Your task to perform on an android device: check out phone information Image 0: 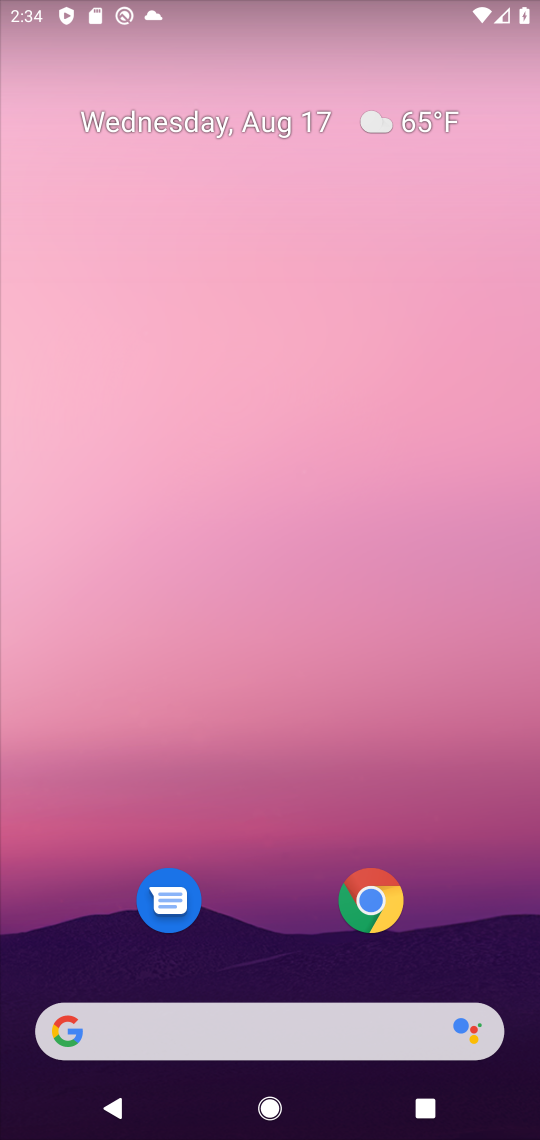
Step 0: drag from (234, 1014) to (301, 145)
Your task to perform on an android device: check out phone information Image 1: 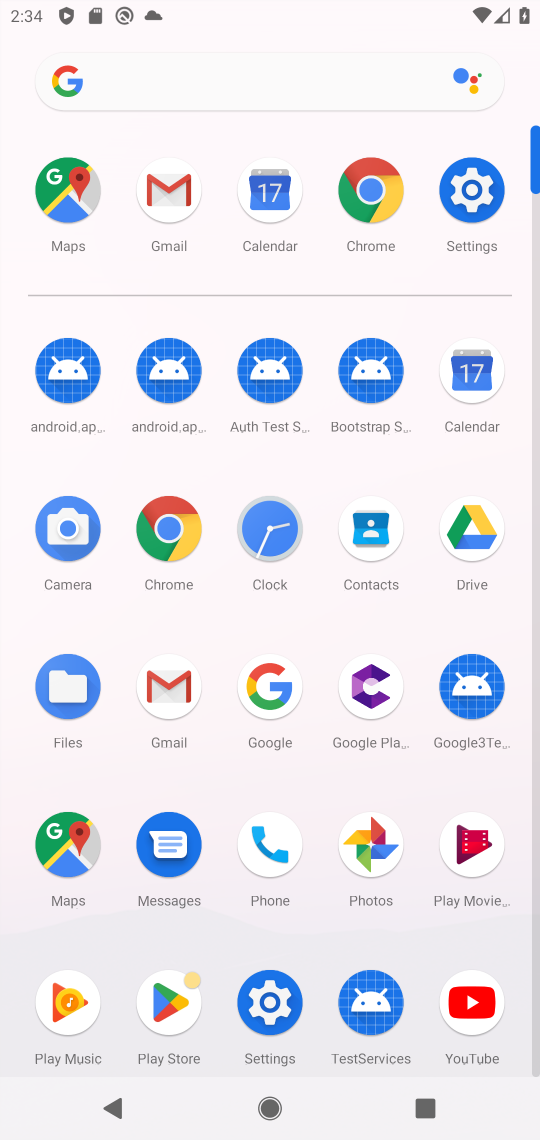
Step 1: click (473, 192)
Your task to perform on an android device: check out phone information Image 2: 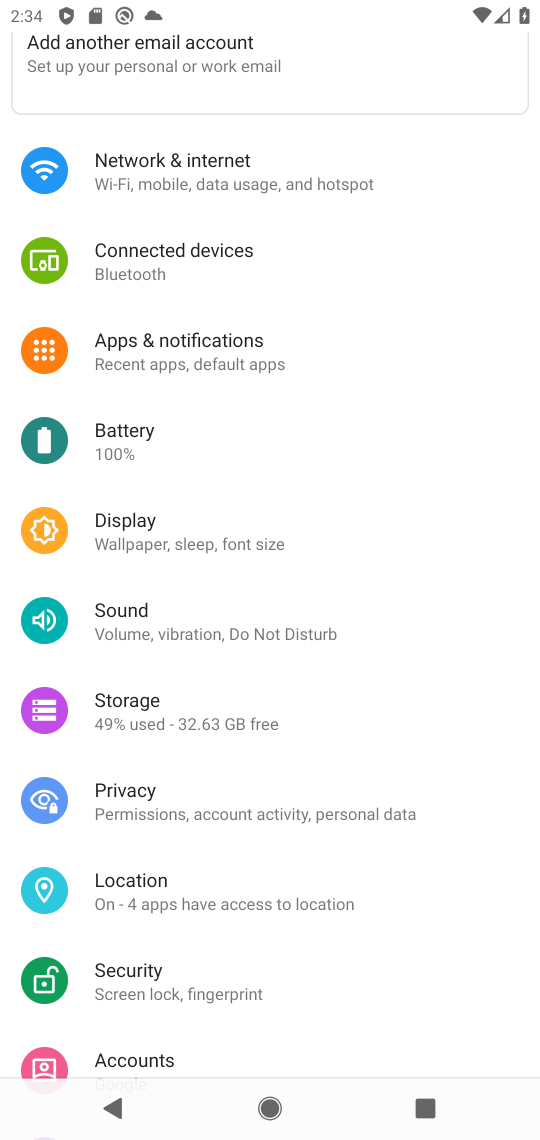
Step 2: drag from (249, 992) to (405, 157)
Your task to perform on an android device: check out phone information Image 3: 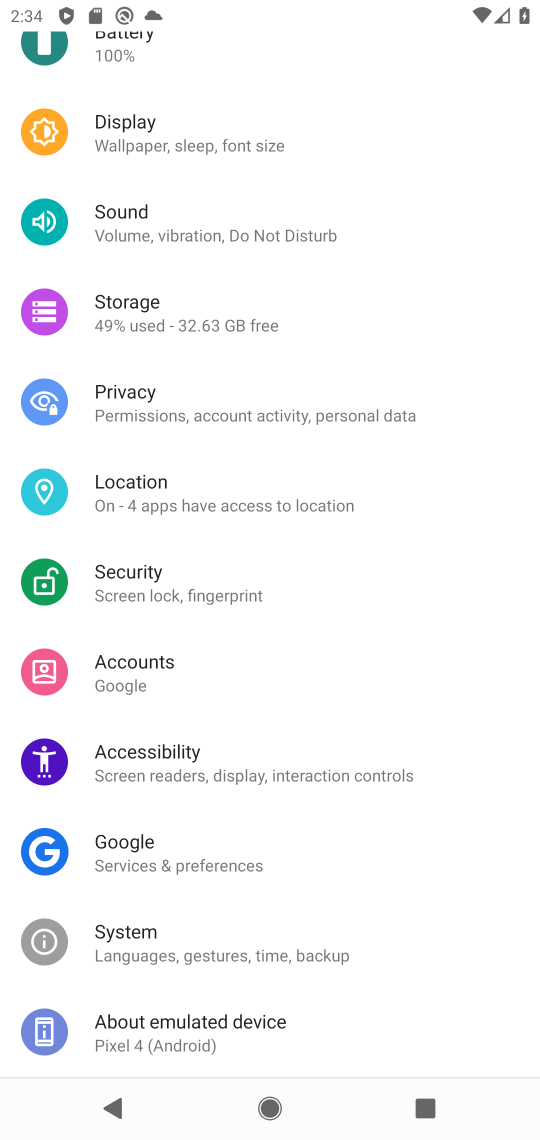
Step 3: click (198, 1015)
Your task to perform on an android device: check out phone information Image 4: 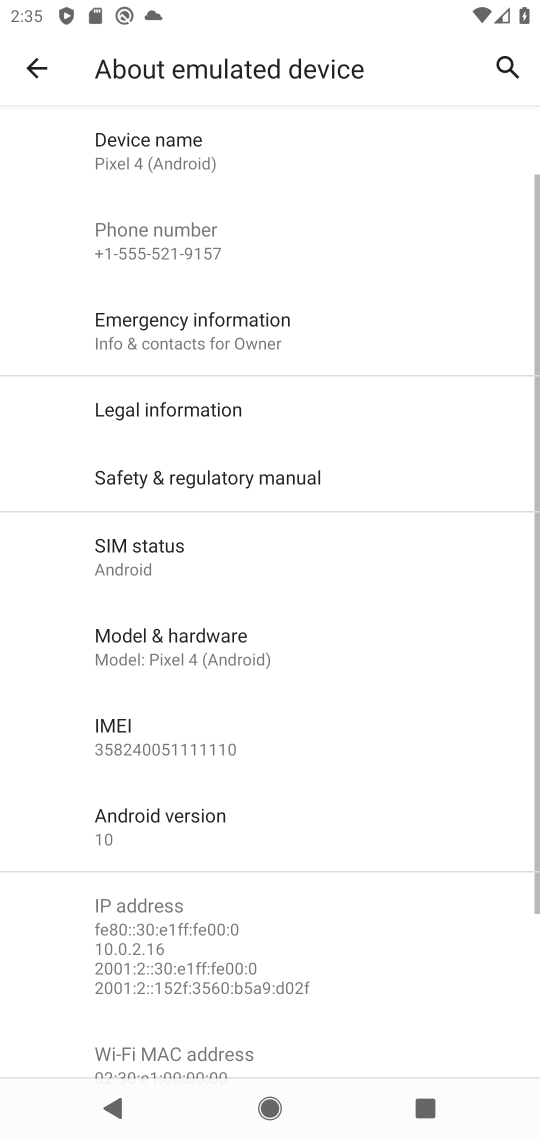
Step 4: task complete